Your task to perform on an android device: When is my next meeting? Image 0: 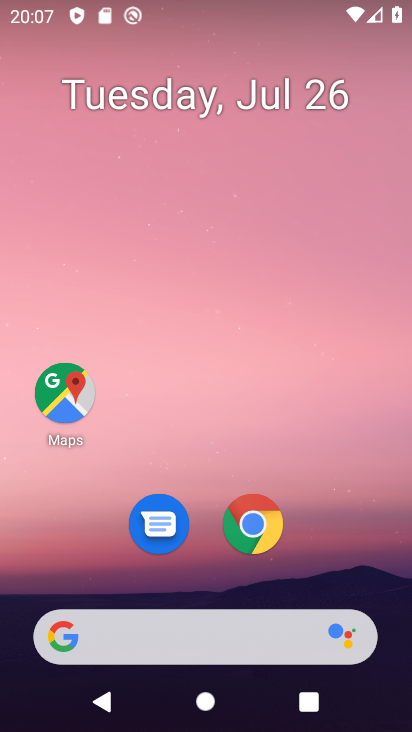
Step 0: press home button
Your task to perform on an android device: When is my next meeting? Image 1: 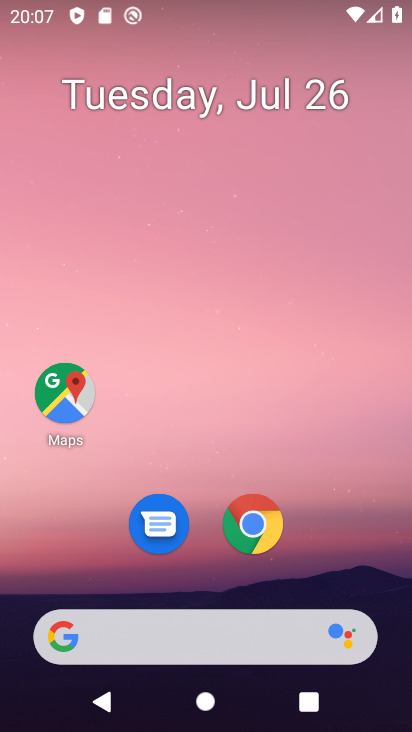
Step 1: drag from (126, 639) to (254, 5)
Your task to perform on an android device: When is my next meeting? Image 2: 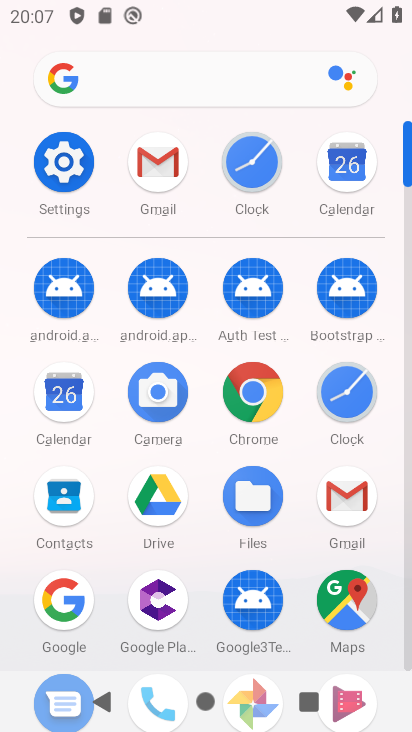
Step 2: click (157, 170)
Your task to perform on an android device: When is my next meeting? Image 3: 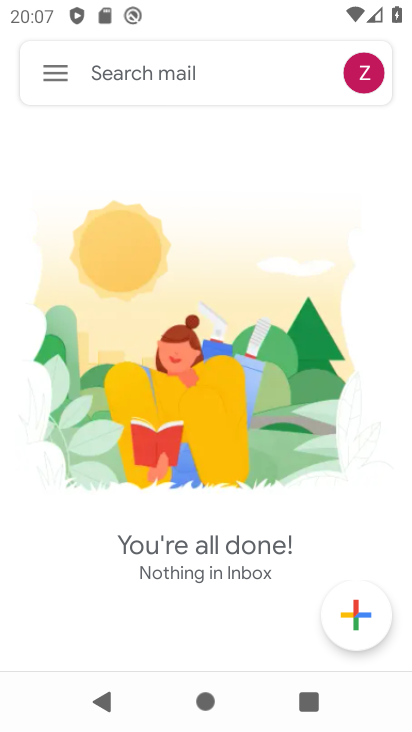
Step 3: press home button
Your task to perform on an android device: When is my next meeting? Image 4: 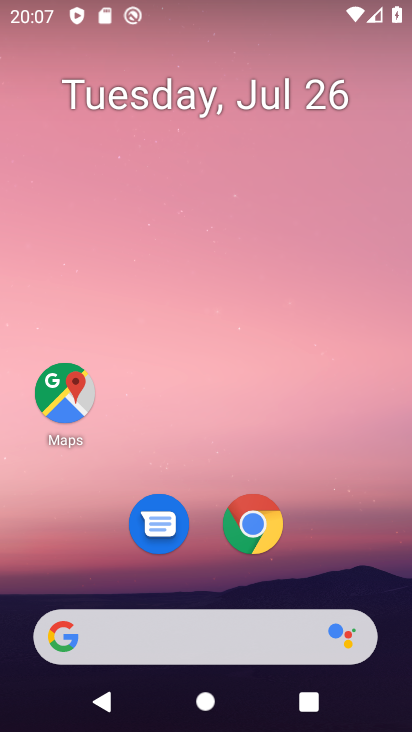
Step 4: drag from (165, 633) to (298, 208)
Your task to perform on an android device: When is my next meeting? Image 5: 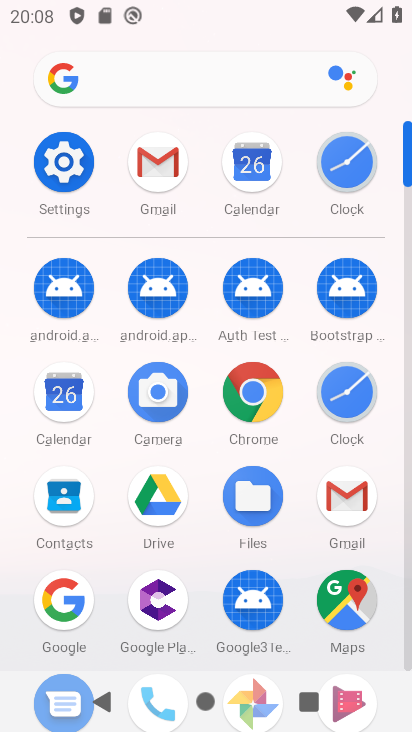
Step 5: click (58, 401)
Your task to perform on an android device: When is my next meeting? Image 6: 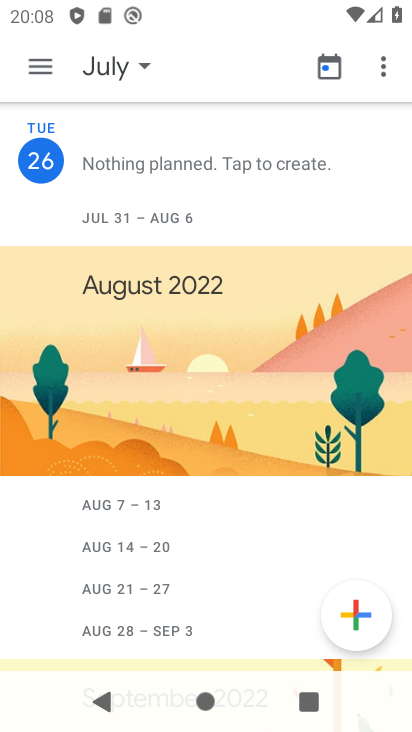
Step 6: click (99, 67)
Your task to perform on an android device: When is my next meeting? Image 7: 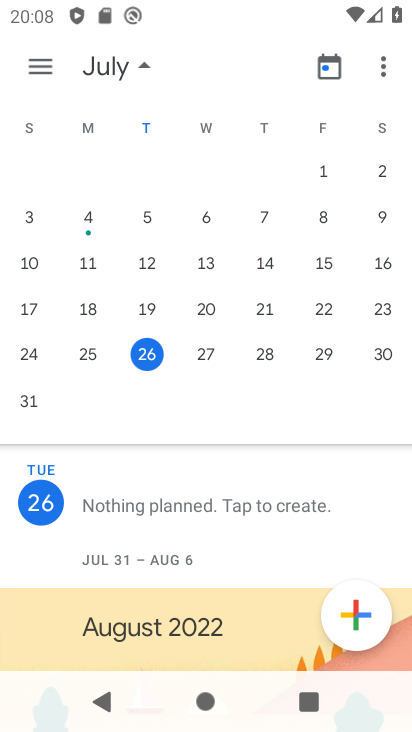
Step 7: click (43, 70)
Your task to perform on an android device: When is my next meeting? Image 8: 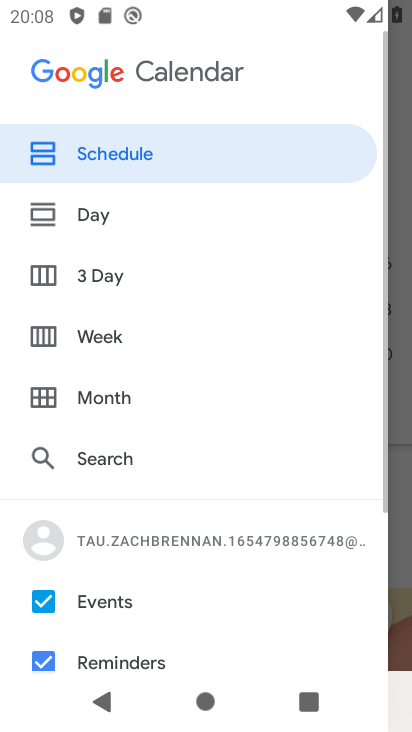
Step 8: click (105, 345)
Your task to perform on an android device: When is my next meeting? Image 9: 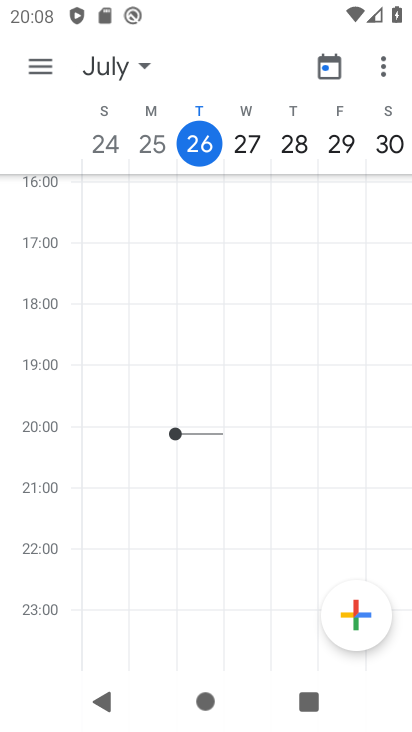
Step 9: click (38, 68)
Your task to perform on an android device: When is my next meeting? Image 10: 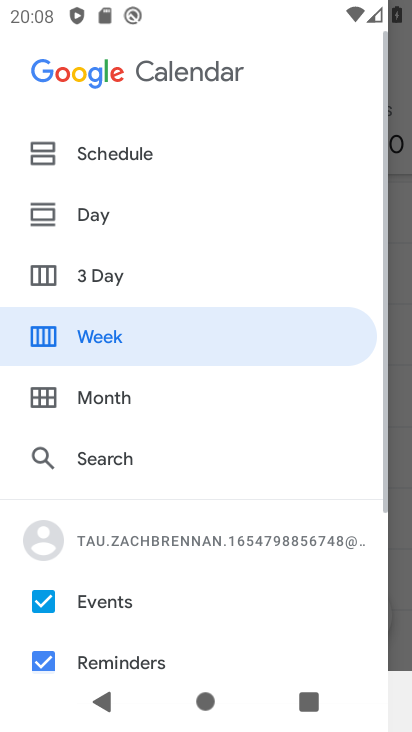
Step 10: click (110, 145)
Your task to perform on an android device: When is my next meeting? Image 11: 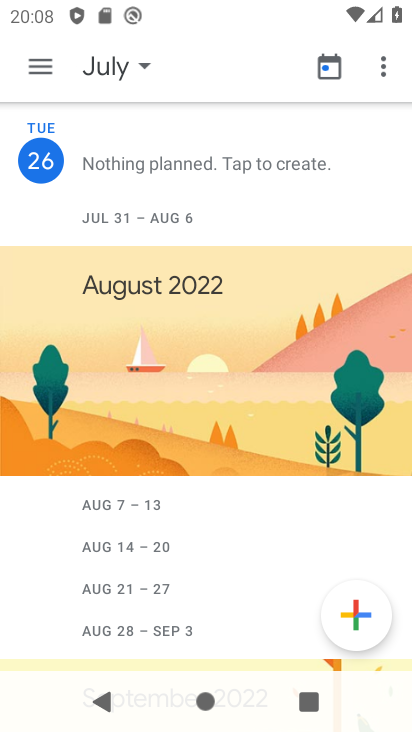
Step 11: task complete